Your task to perform on an android device: check google app version Image 0: 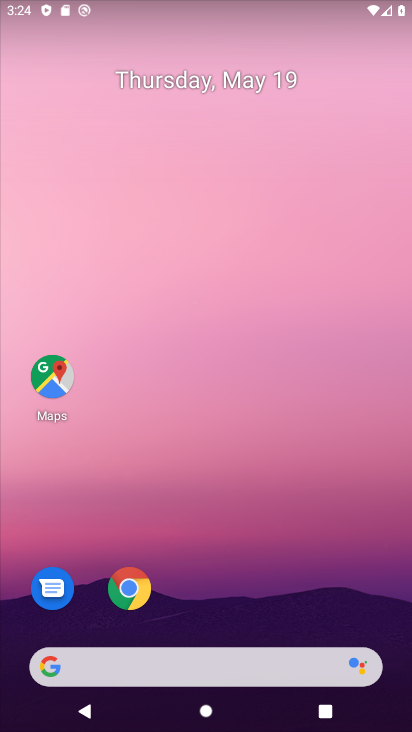
Step 0: click (50, 672)
Your task to perform on an android device: check google app version Image 1: 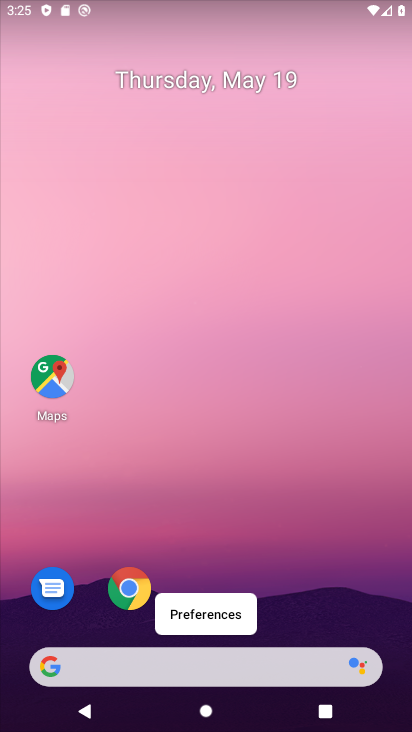
Step 1: click (68, 657)
Your task to perform on an android device: check google app version Image 2: 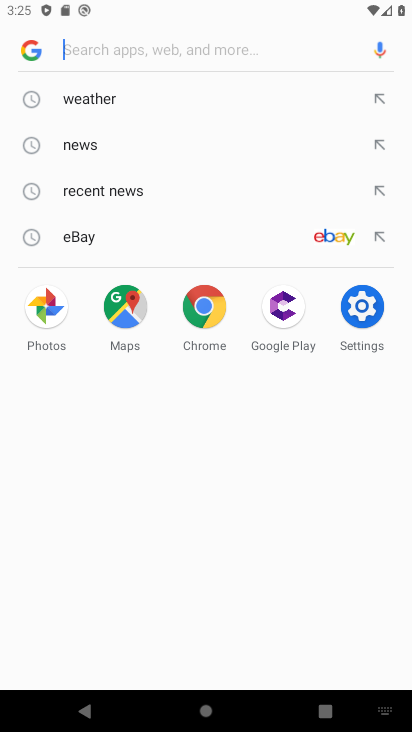
Step 2: click (28, 53)
Your task to perform on an android device: check google app version Image 3: 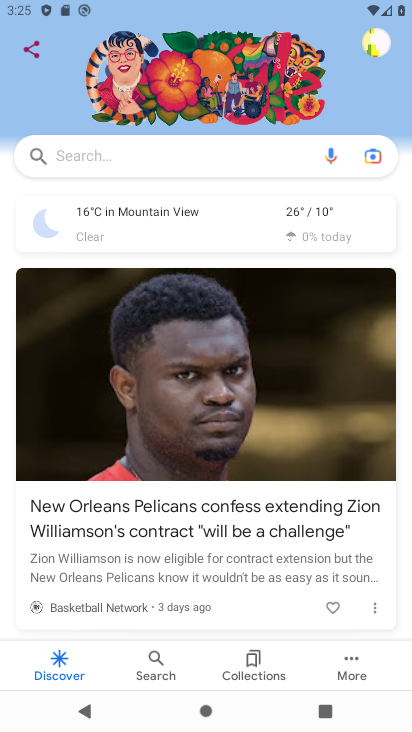
Step 3: click (343, 661)
Your task to perform on an android device: check google app version Image 4: 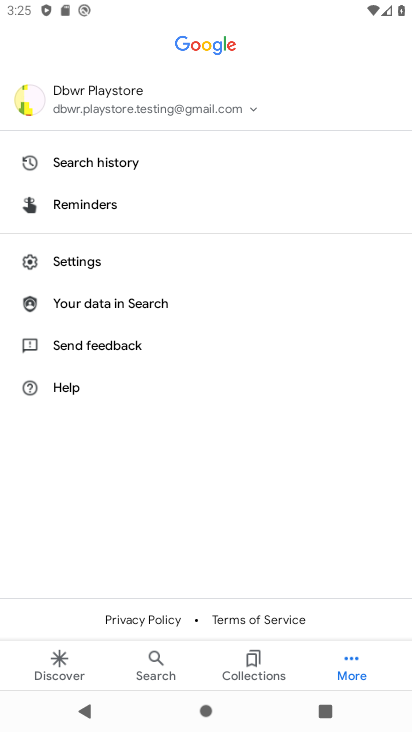
Step 4: click (74, 266)
Your task to perform on an android device: check google app version Image 5: 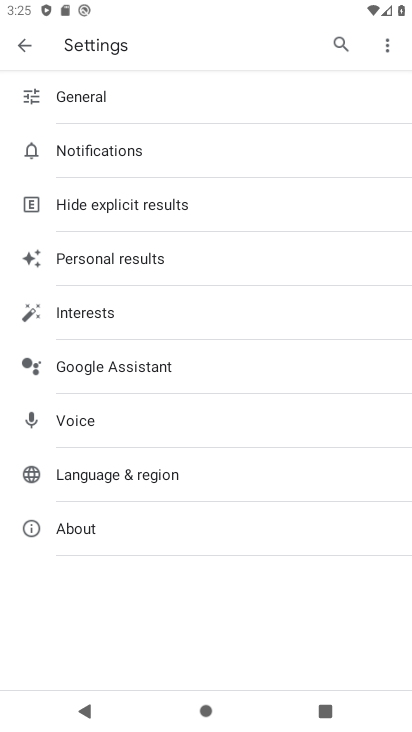
Step 5: click (111, 520)
Your task to perform on an android device: check google app version Image 6: 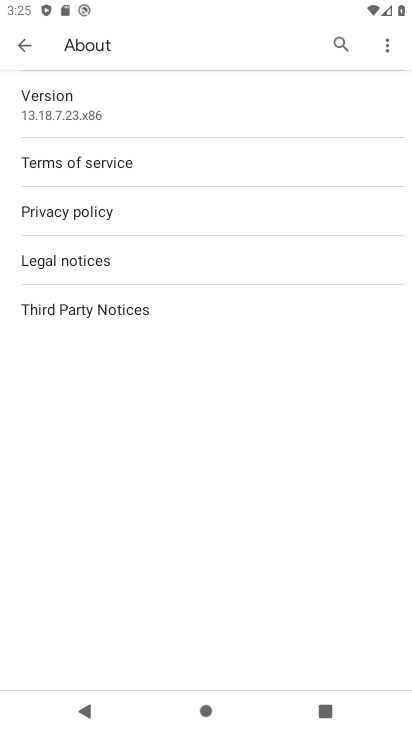
Step 6: task complete